Your task to perform on an android device: clear history in the chrome app Image 0: 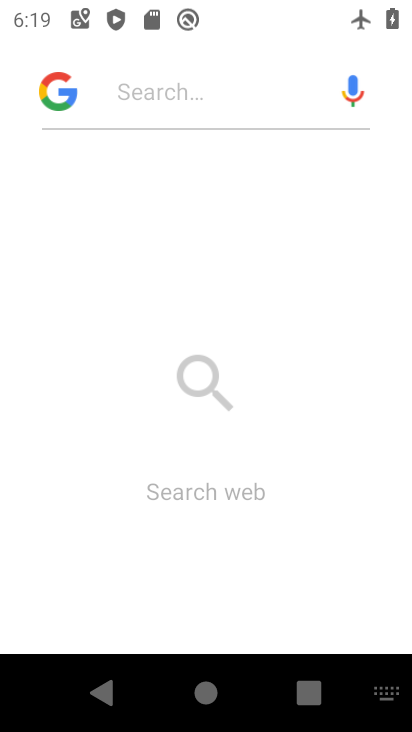
Step 0: drag from (316, 500) to (304, 217)
Your task to perform on an android device: clear history in the chrome app Image 1: 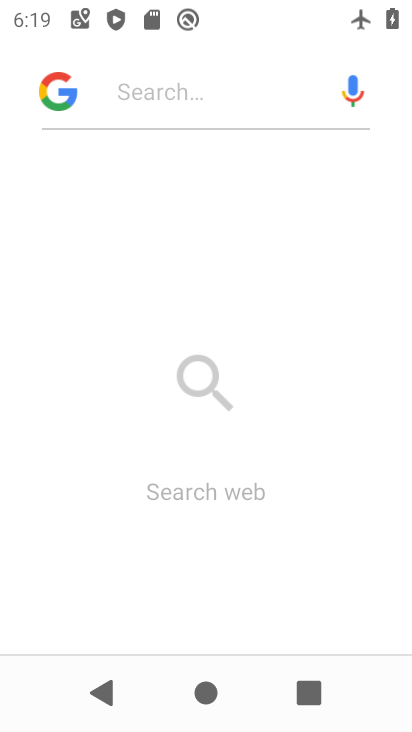
Step 1: press home button
Your task to perform on an android device: clear history in the chrome app Image 2: 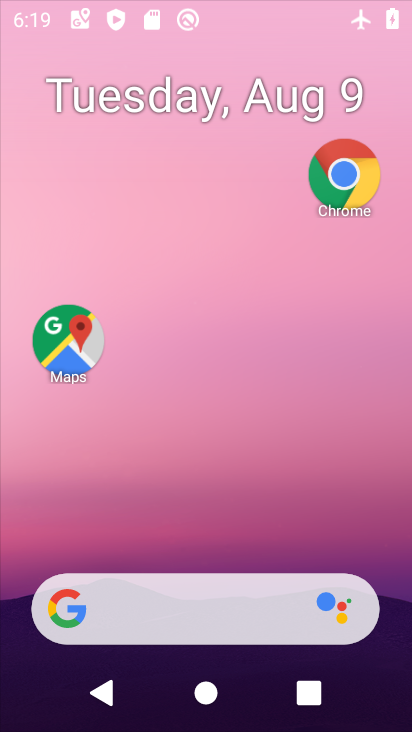
Step 2: drag from (166, 638) to (170, 229)
Your task to perform on an android device: clear history in the chrome app Image 3: 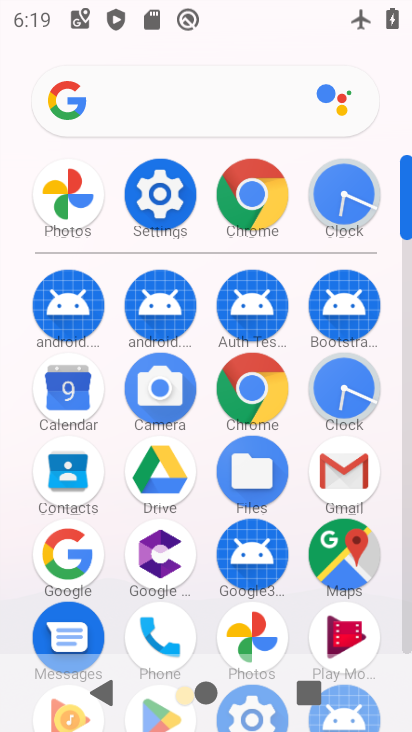
Step 3: click (265, 377)
Your task to perform on an android device: clear history in the chrome app Image 4: 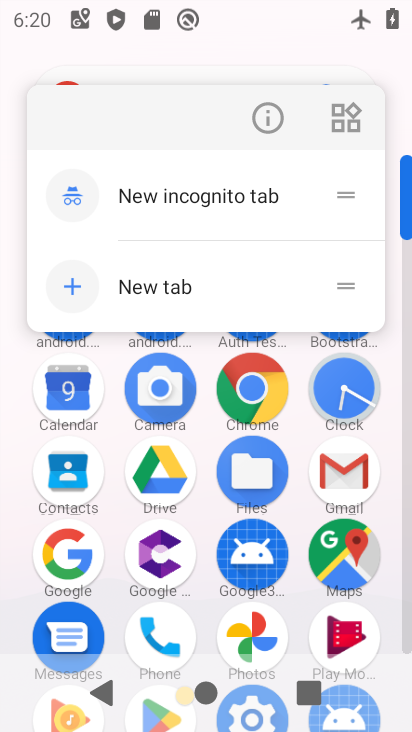
Step 4: click (265, 129)
Your task to perform on an android device: clear history in the chrome app Image 5: 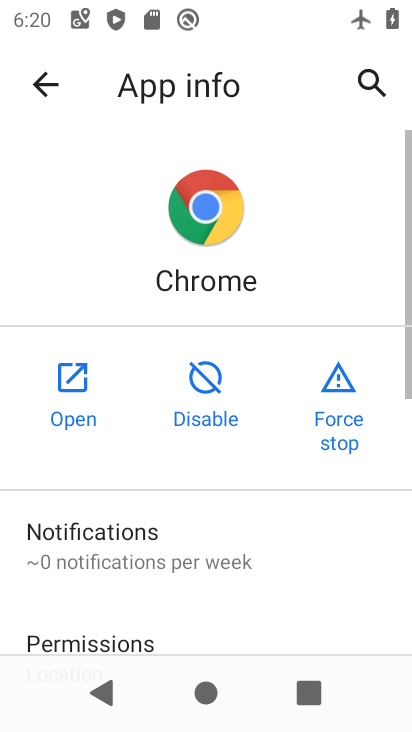
Step 5: click (100, 363)
Your task to perform on an android device: clear history in the chrome app Image 6: 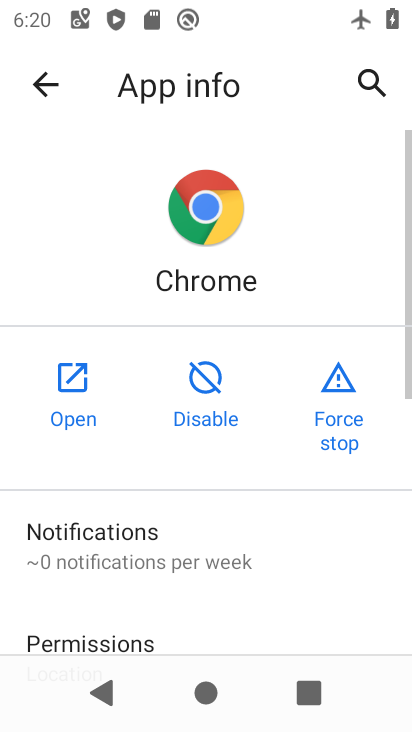
Step 6: click (100, 363)
Your task to perform on an android device: clear history in the chrome app Image 7: 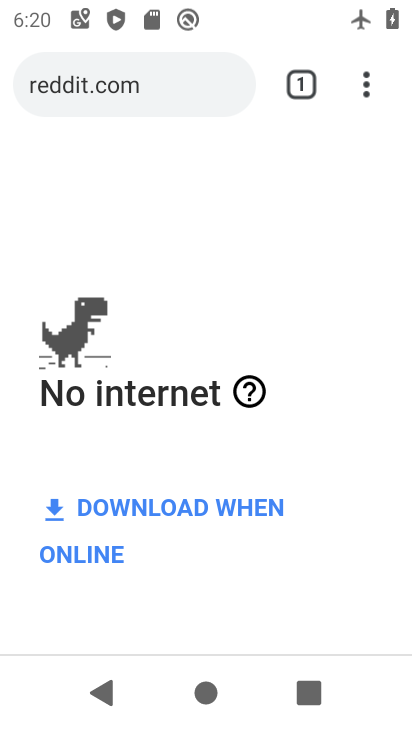
Step 7: drag from (363, 78) to (107, 467)
Your task to perform on an android device: clear history in the chrome app Image 8: 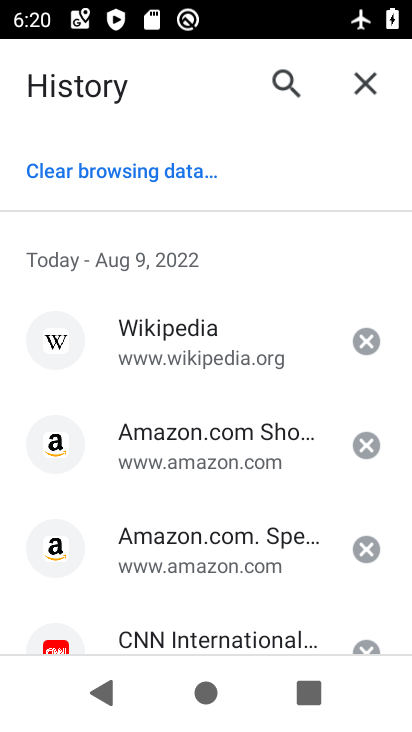
Step 8: click (152, 167)
Your task to perform on an android device: clear history in the chrome app Image 9: 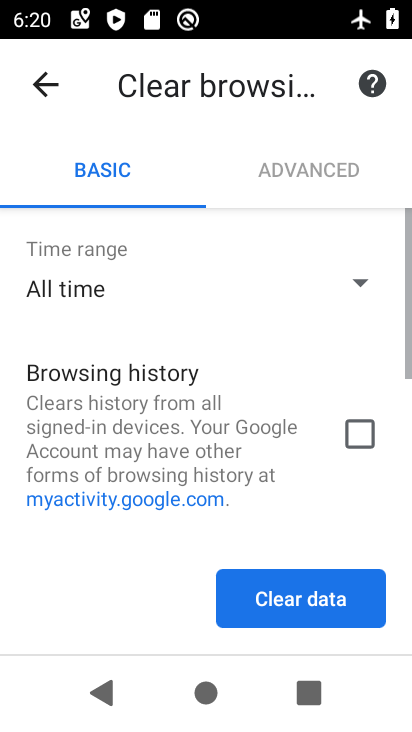
Step 9: click (350, 620)
Your task to perform on an android device: clear history in the chrome app Image 10: 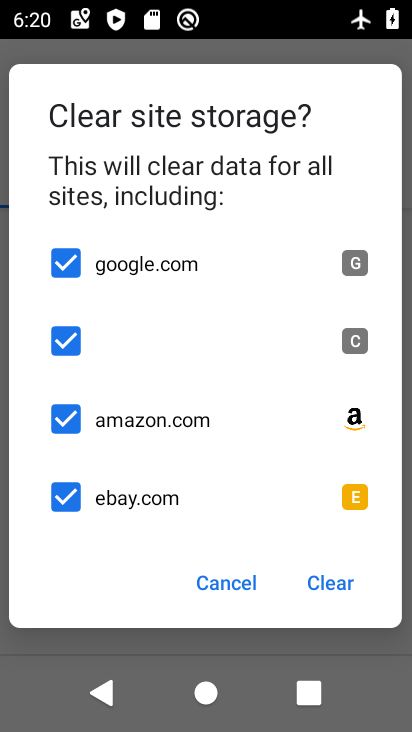
Step 10: click (312, 566)
Your task to perform on an android device: clear history in the chrome app Image 11: 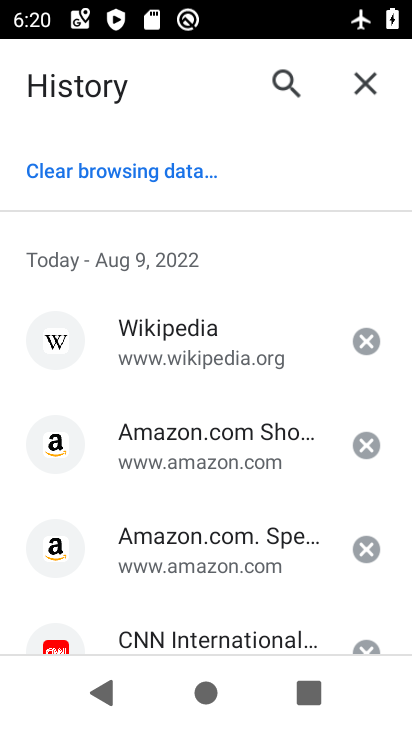
Step 11: task complete